Your task to perform on an android device: search for starred emails in the gmail app Image 0: 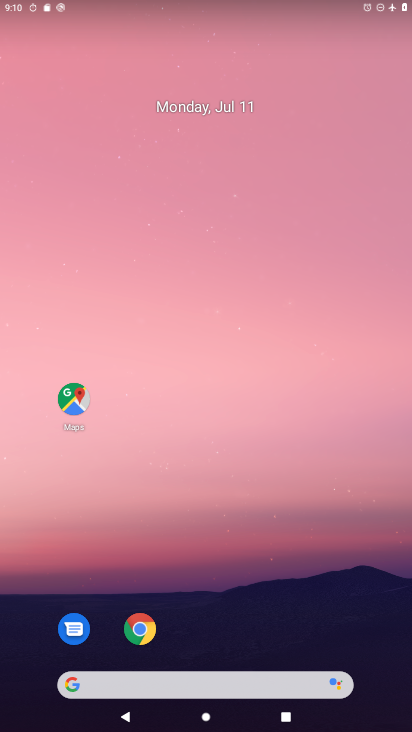
Step 0: drag from (193, 642) to (165, 38)
Your task to perform on an android device: search for starred emails in the gmail app Image 1: 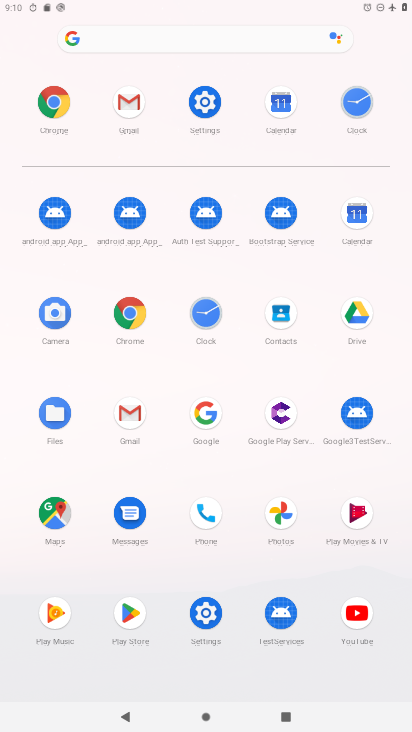
Step 1: click (127, 101)
Your task to perform on an android device: search for starred emails in the gmail app Image 2: 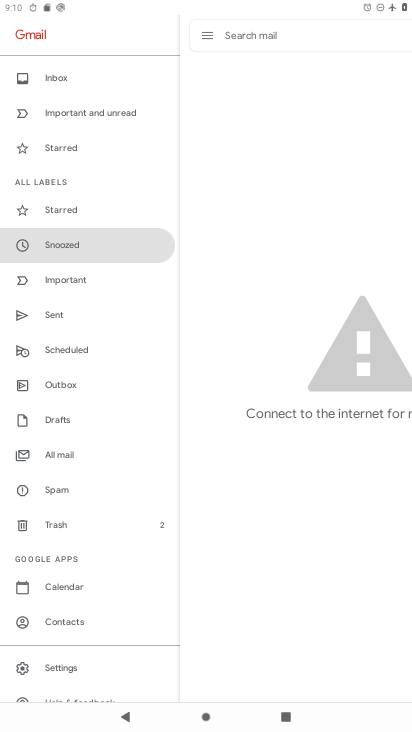
Step 2: click (65, 206)
Your task to perform on an android device: search for starred emails in the gmail app Image 3: 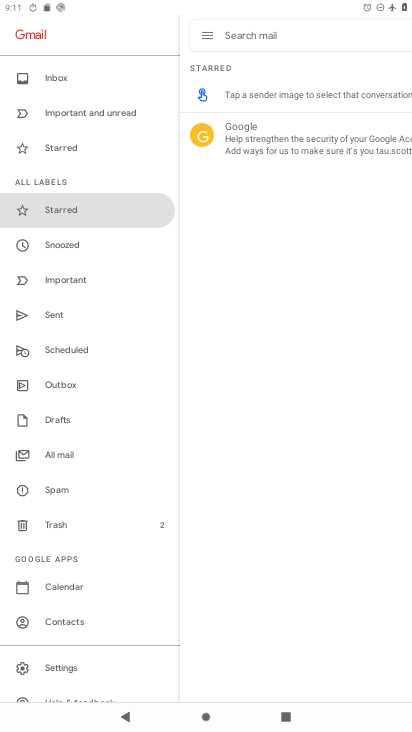
Step 3: task complete